Your task to perform on an android device: Go to notification settings Image 0: 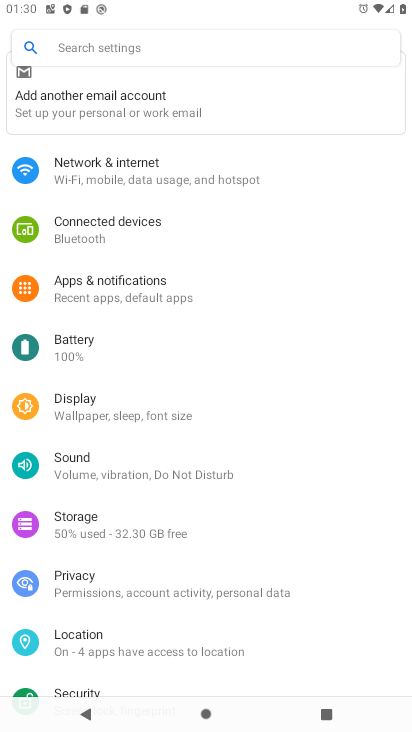
Step 0: click (65, 279)
Your task to perform on an android device: Go to notification settings Image 1: 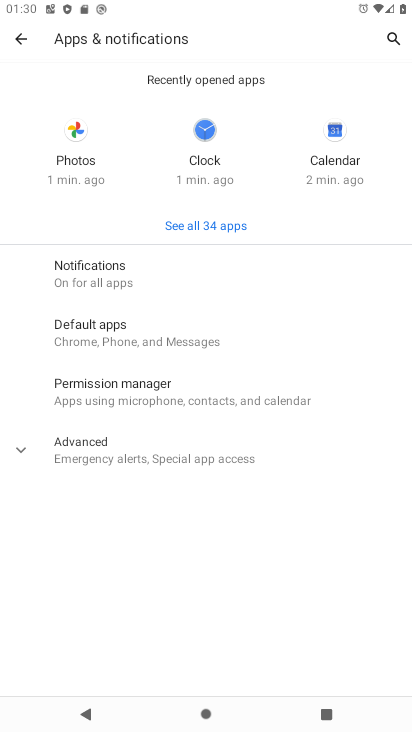
Step 1: click (65, 279)
Your task to perform on an android device: Go to notification settings Image 2: 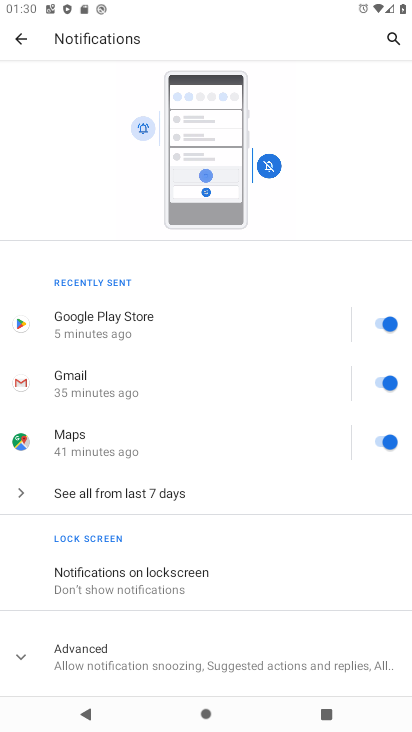
Step 2: task complete